Your task to perform on an android device: What's the weather going to be this weekend? Image 0: 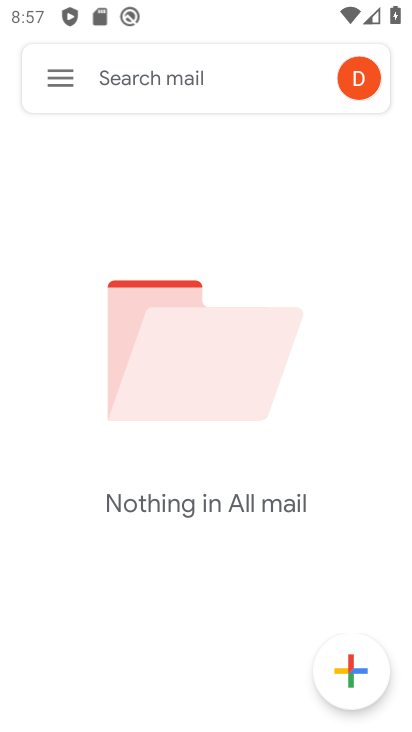
Step 0: press home button
Your task to perform on an android device: What's the weather going to be this weekend? Image 1: 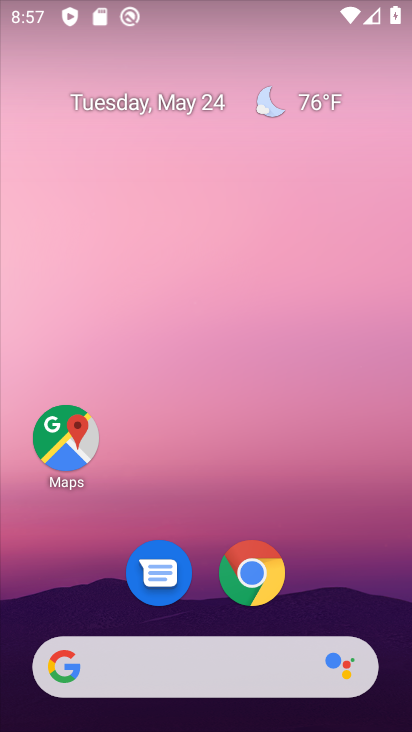
Step 1: click (320, 83)
Your task to perform on an android device: What's the weather going to be this weekend? Image 2: 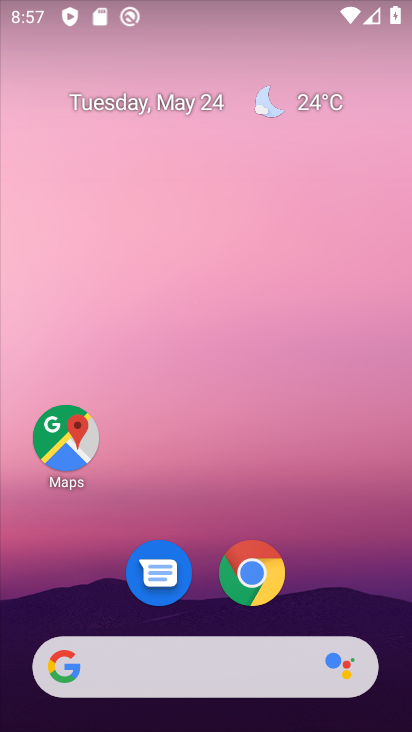
Step 2: click (313, 107)
Your task to perform on an android device: What's the weather going to be this weekend? Image 3: 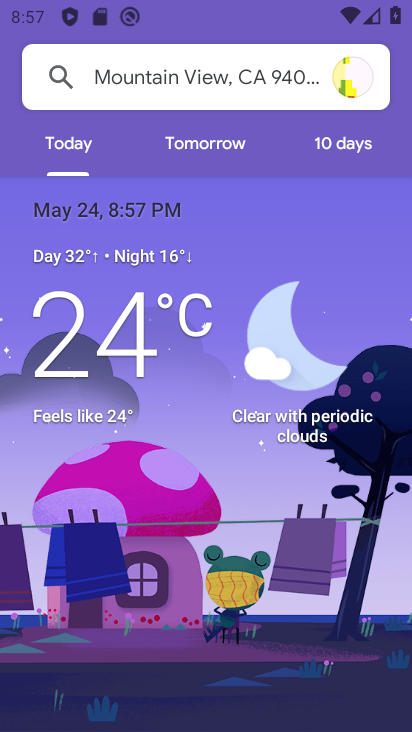
Step 3: click (329, 150)
Your task to perform on an android device: What's the weather going to be this weekend? Image 4: 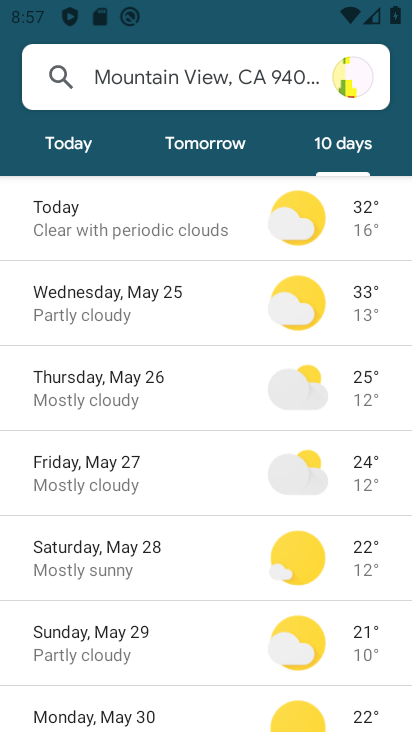
Step 4: task complete